Your task to perform on an android device: Open eBay Image 0: 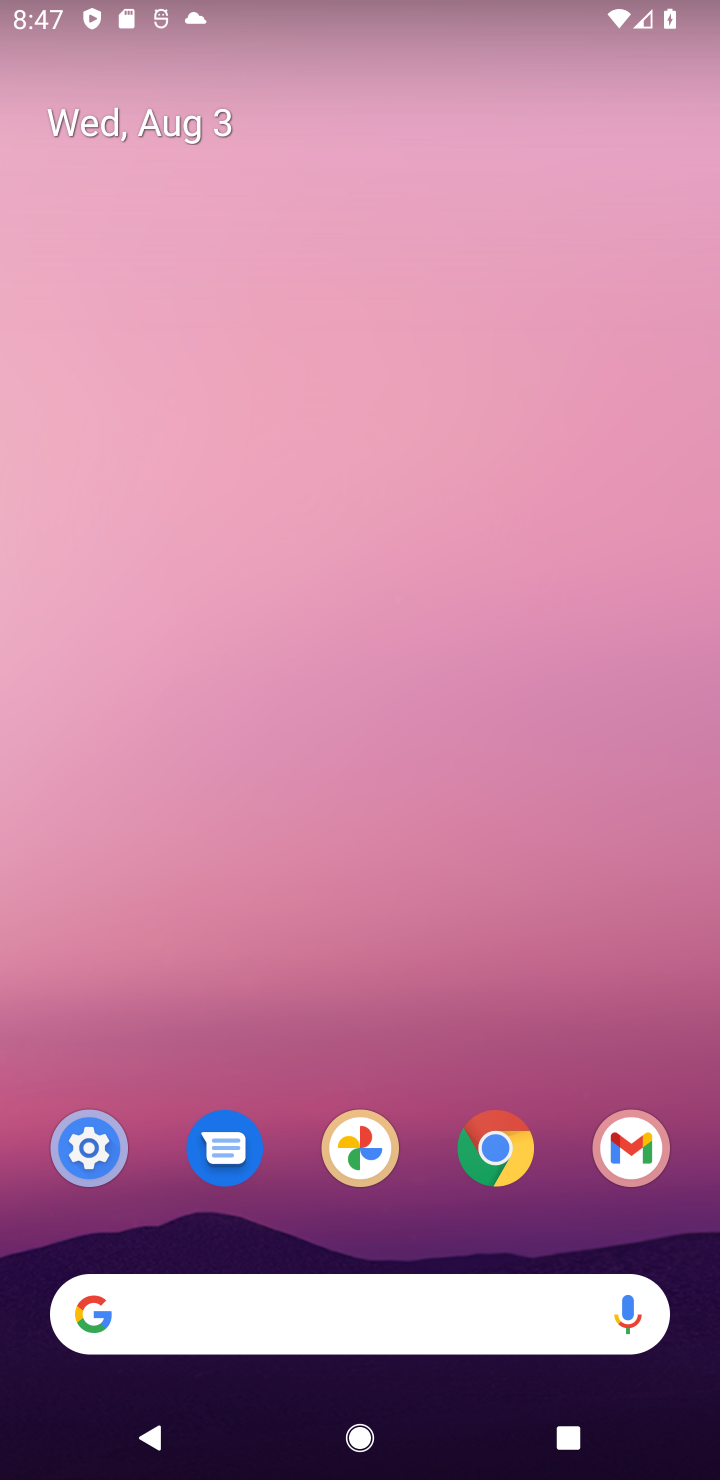
Step 0: click (494, 1169)
Your task to perform on an android device: Open eBay Image 1: 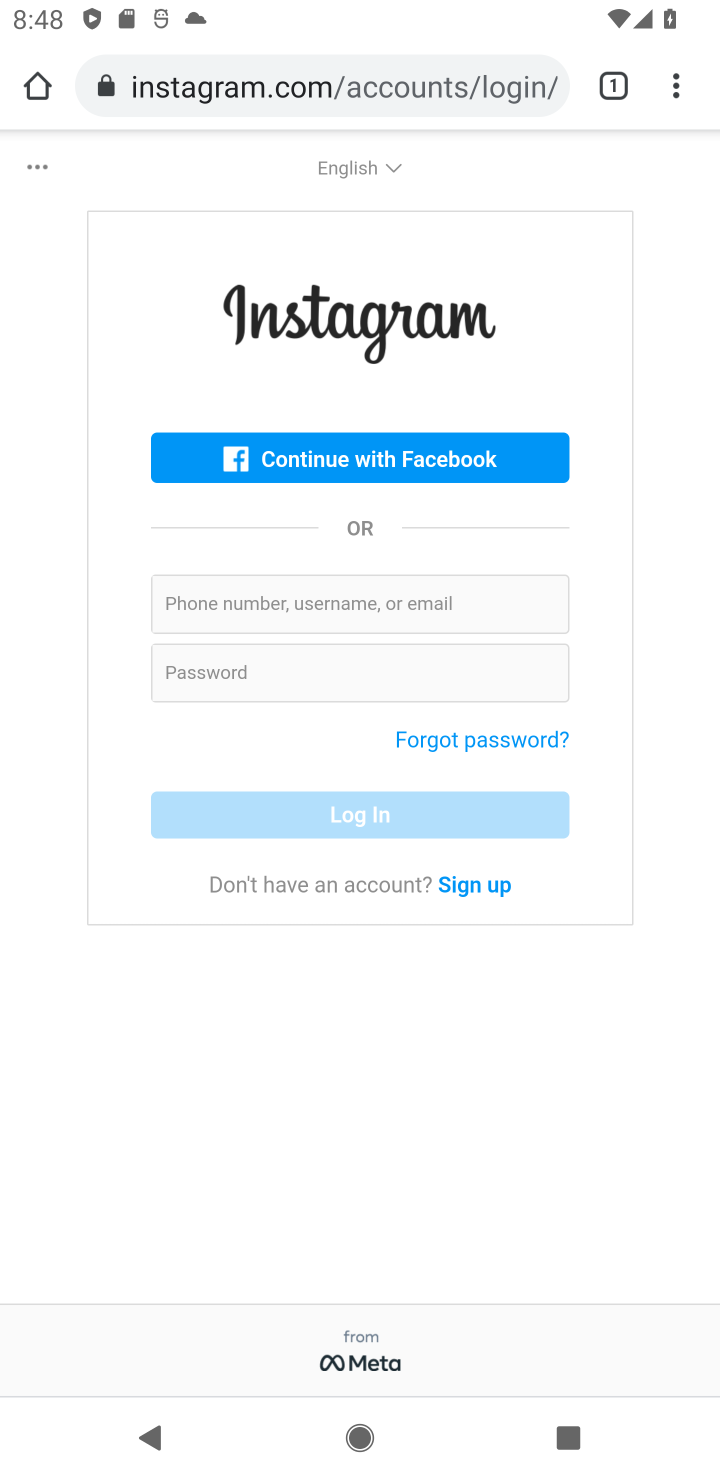
Step 1: click (37, 94)
Your task to perform on an android device: Open eBay Image 2: 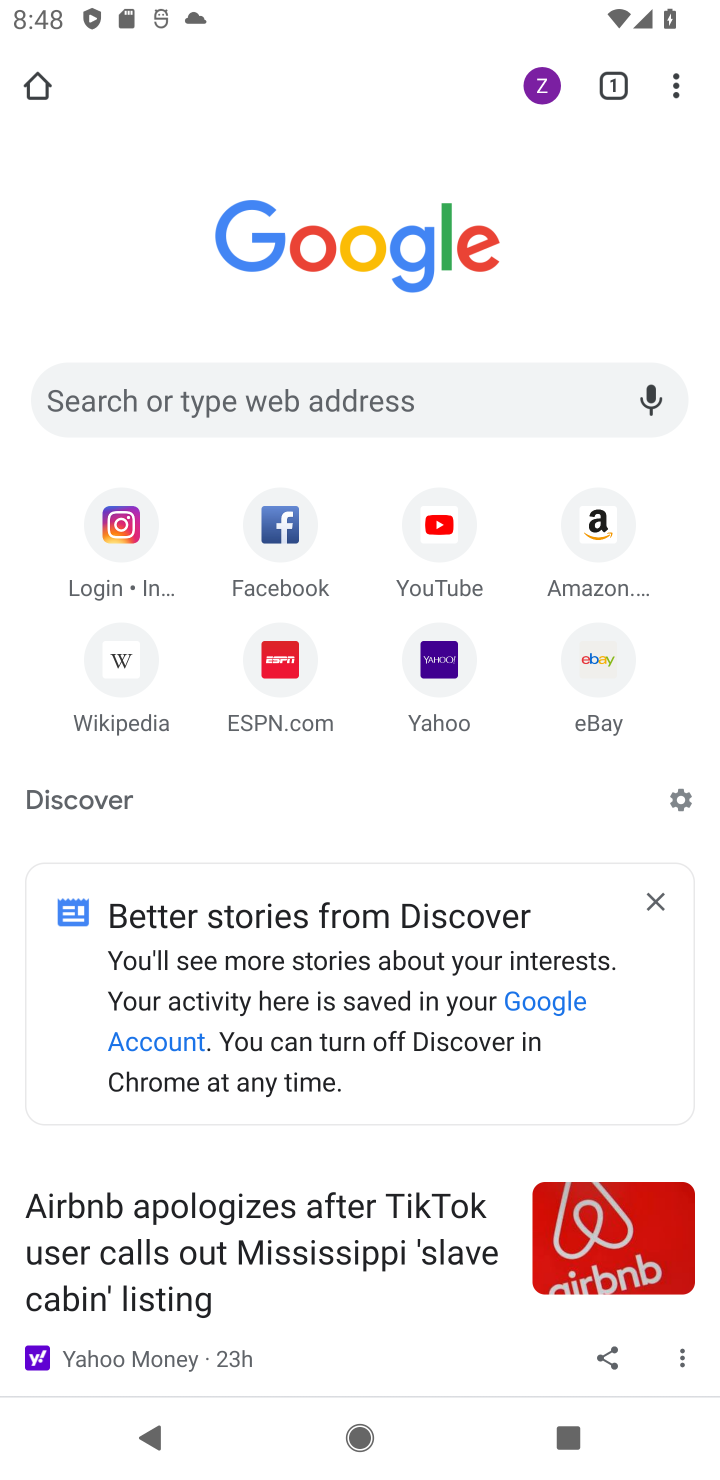
Step 2: click (37, 94)
Your task to perform on an android device: Open eBay Image 3: 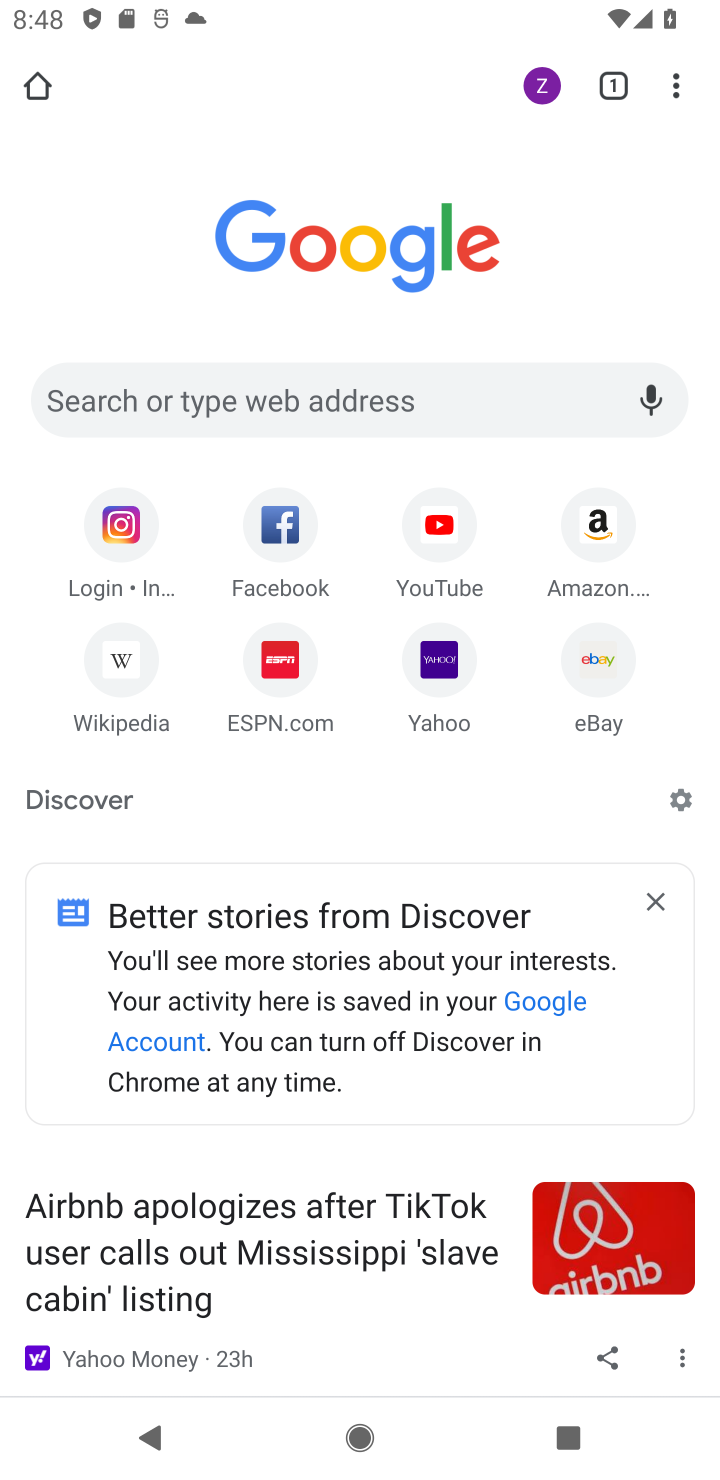
Step 3: click (596, 671)
Your task to perform on an android device: Open eBay Image 4: 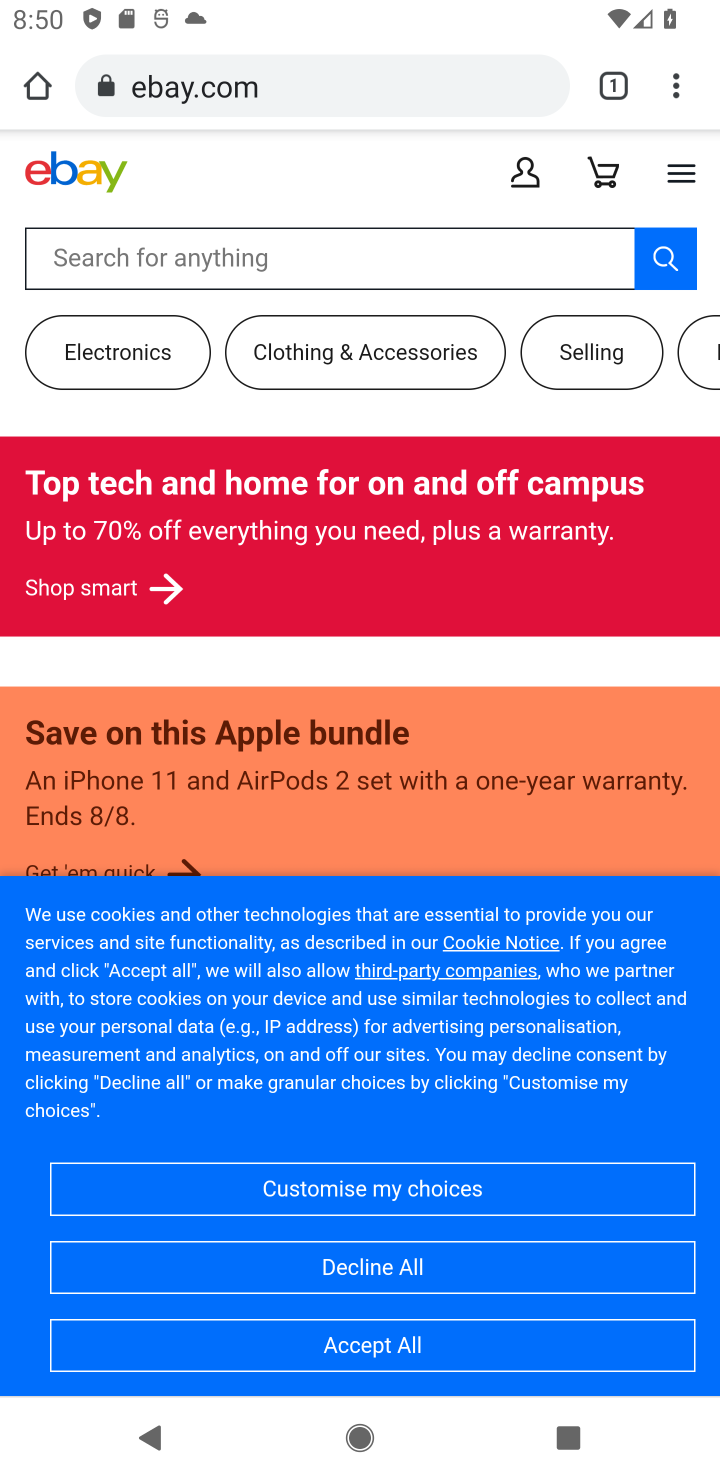
Step 4: task complete